Your task to perform on an android device: open a new tab in the chrome app Image 0: 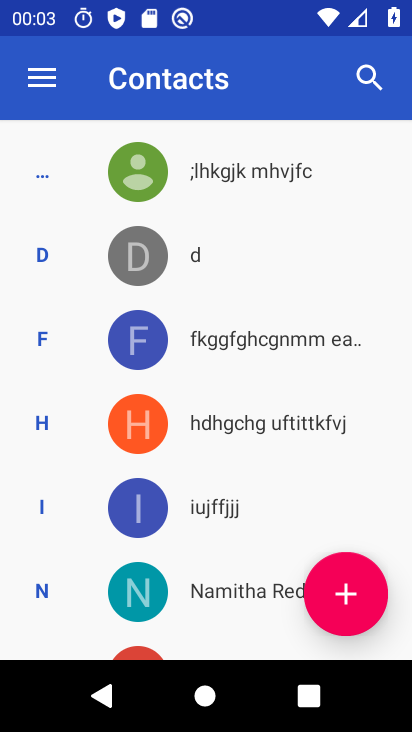
Step 0: press home button
Your task to perform on an android device: open a new tab in the chrome app Image 1: 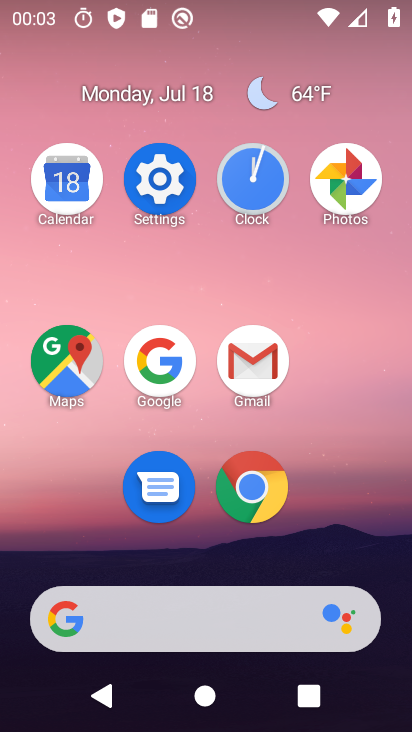
Step 1: click (270, 490)
Your task to perform on an android device: open a new tab in the chrome app Image 2: 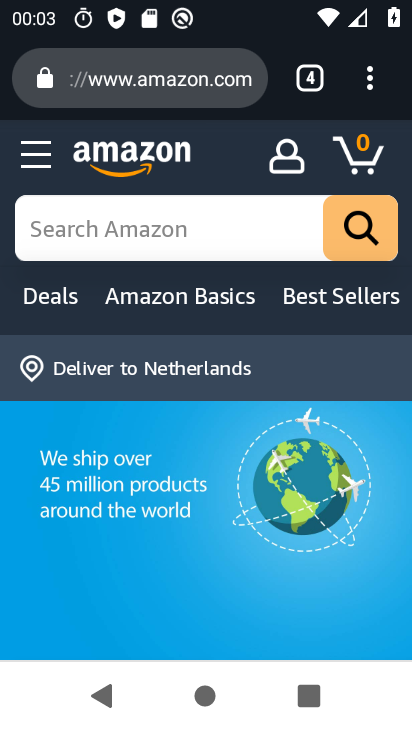
Step 2: click (303, 93)
Your task to perform on an android device: open a new tab in the chrome app Image 3: 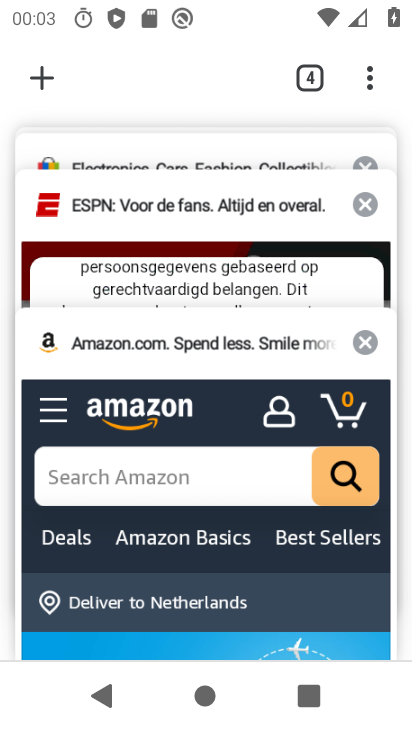
Step 3: click (54, 91)
Your task to perform on an android device: open a new tab in the chrome app Image 4: 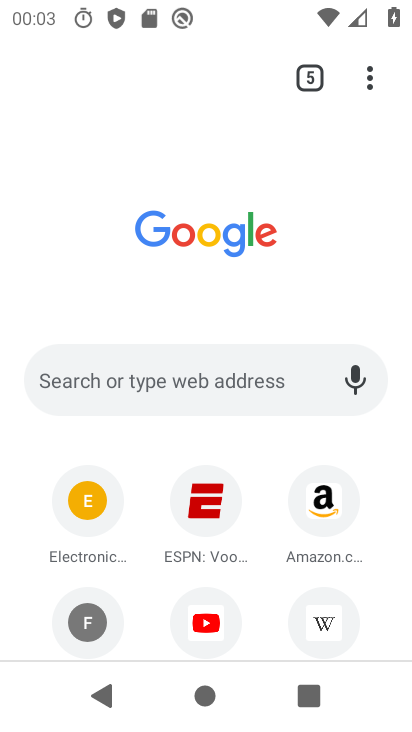
Step 4: task complete